Your task to perform on an android device: Open battery settings Image 0: 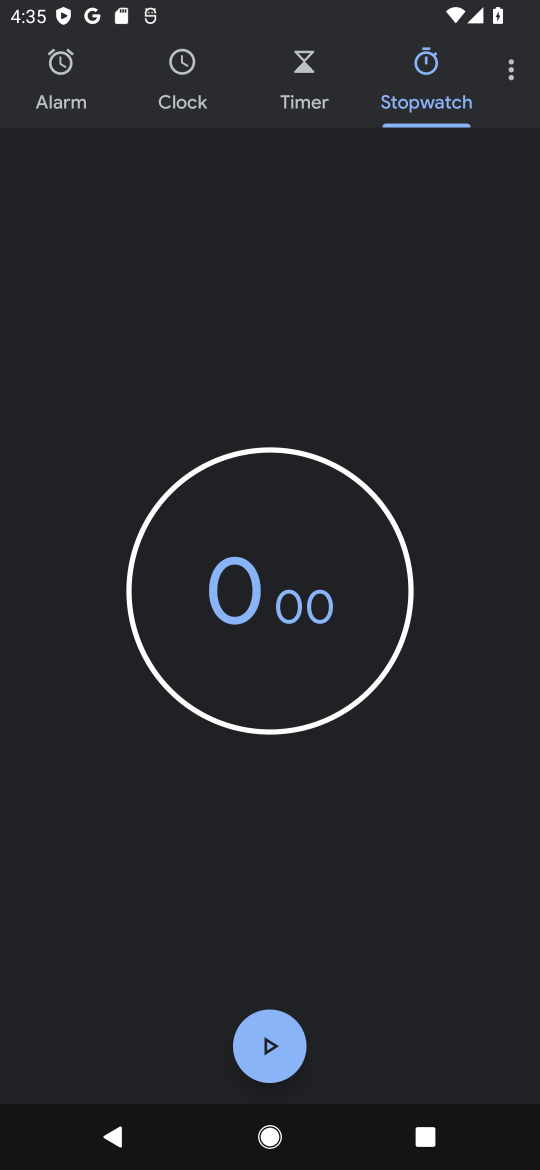
Step 0: press back button
Your task to perform on an android device: Open battery settings Image 1: 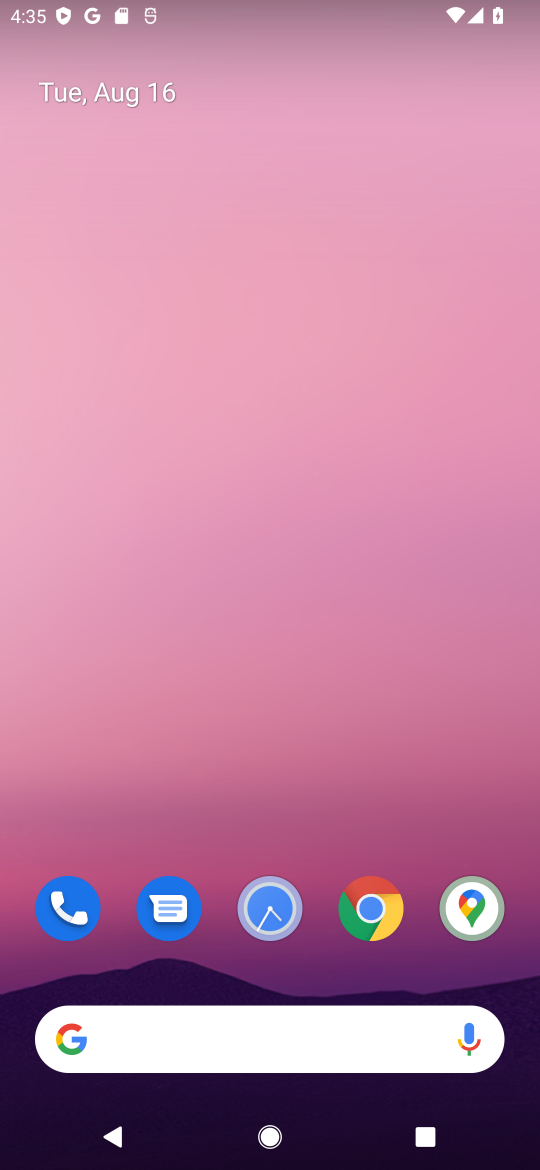
Step 1: drag from (215, 937) to (368, 110)
Your task to perform on an android device: Open battery settings Image 2: 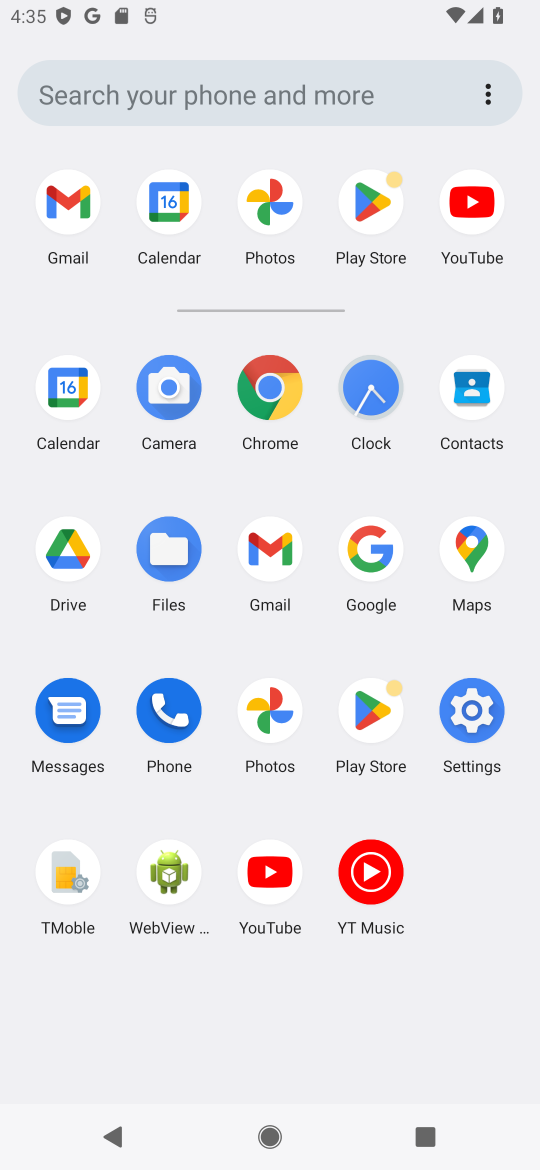
Step 2: click (464, 713)
Your task to perform on an android device: Open battery settings Image 3: 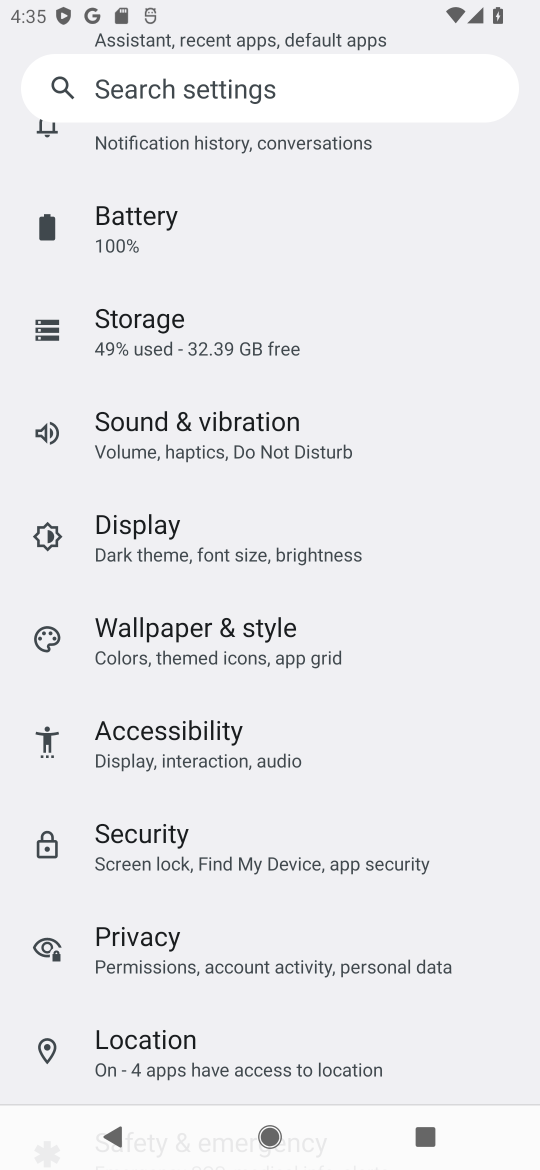
Step 3: click (150, 219)
Your task to perform on an android device: Open battery settings Image 4: 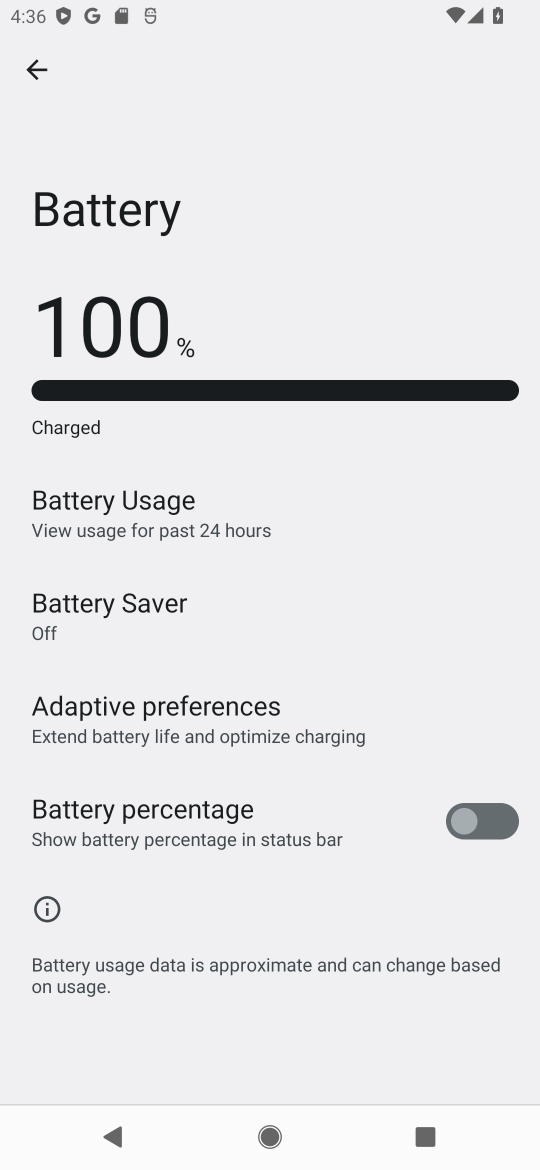
Step 4: task complete